Your task to perform on an android device: delete browsing data in the chrome app Image 0: 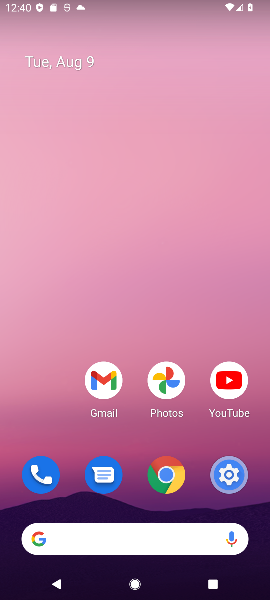
Step 0: click (168, 479)
Your task to perform on an android device: delete browsing data in the chrome app Image 1: 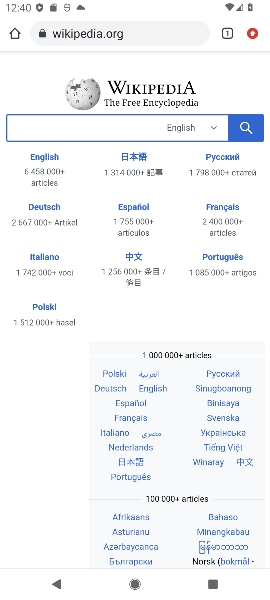
Step 1: click (252, 30)
Your task to perform on an android device: delete browsing data in the chrome app Image 2: 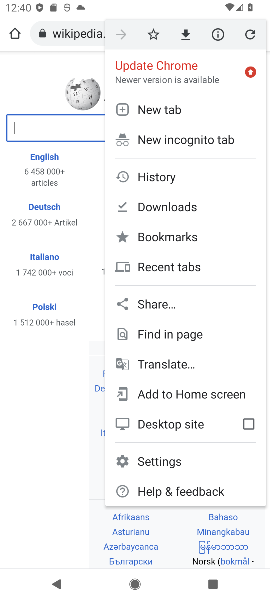
Step 2: click (154, 181)
Your task to perform on an android device: delete browsing data in the chrome app Image 3: 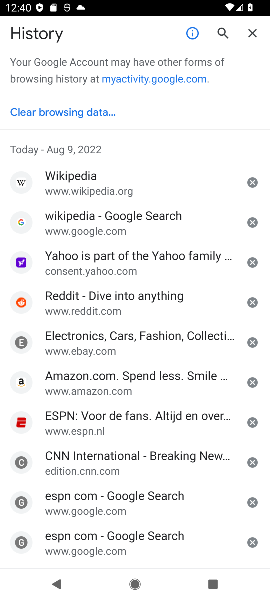
Step 3: click (40, 108)
Your task to perform on an android device: delete browsing data in the chrome app Image 4: 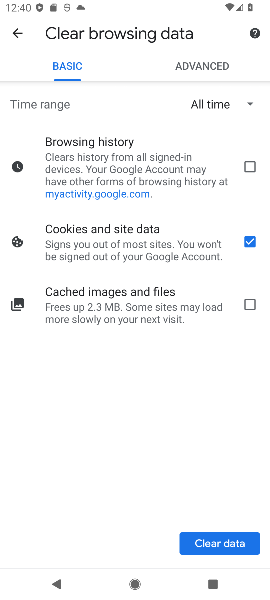
Step 4: click (247, 173)
Your task to perform on an android device: delete browsing data in the chrome app Image 5: 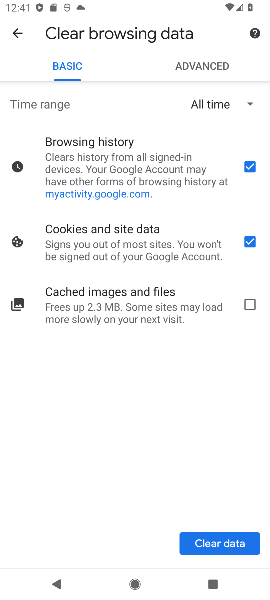
Step 5: click (253, 309)
Your task to perform on an android device: delete browsing data in the chrome app Image 6: 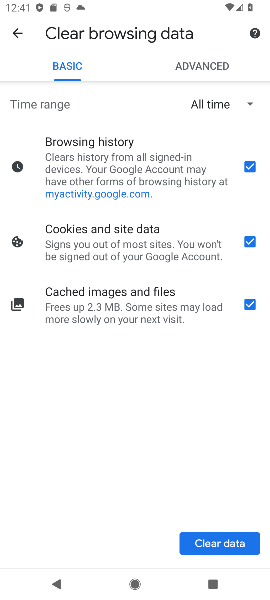
Step 6: click (200, 541)
Your task to perform on an android device: delete browsing data in the chrome app Image 7: 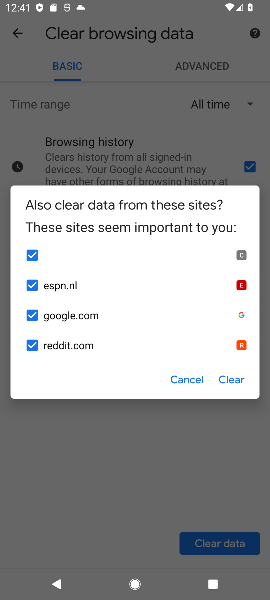
Step 7: click (234, 376)
Your task to perform on an android device: delete browsing data in the chrome app Image 8: 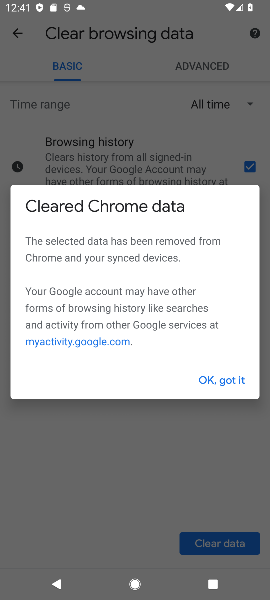
Step 8: click (234, 376)
Your task to perform on an android device: delete browsing data in the chrome app Image 9: 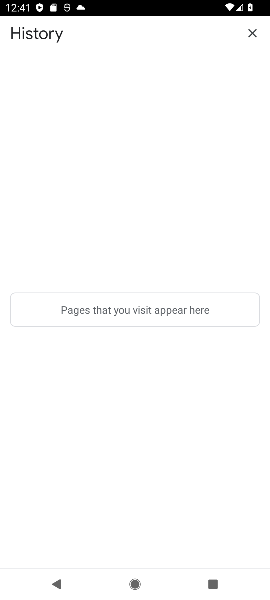
Step 9: task complete